Your task to perform on an android device: uninstall "TextNow: Call + Text Unlimited" Image 0: 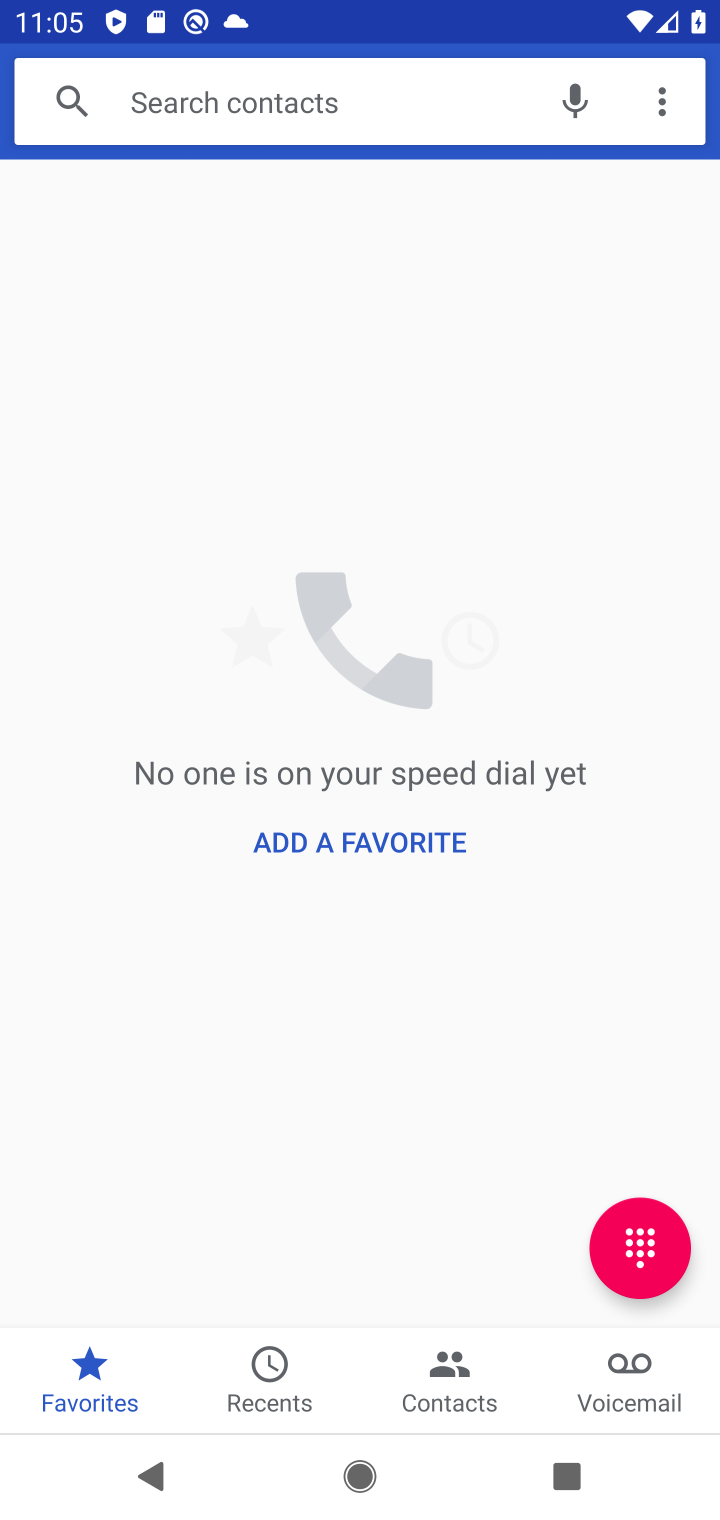
Step 0: press home button
Your task to perform on an android device: uninstall "TextNow: Call + Text Unlimited" Image 1: 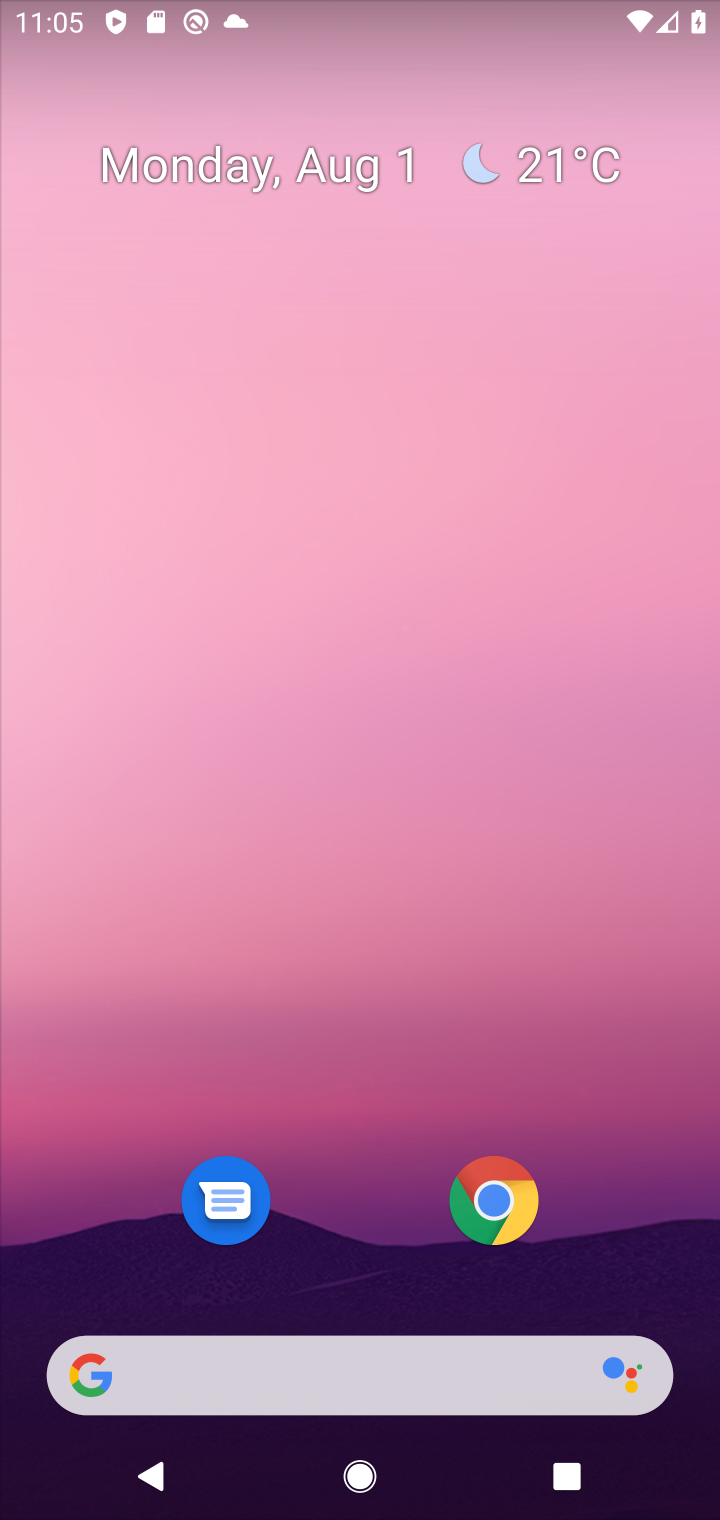
Step 1: drag from (372, 609) to (354, 87)
Your task to perform on an android device: uninstall "TextNow: Call + Text Unlimited" Image 2: 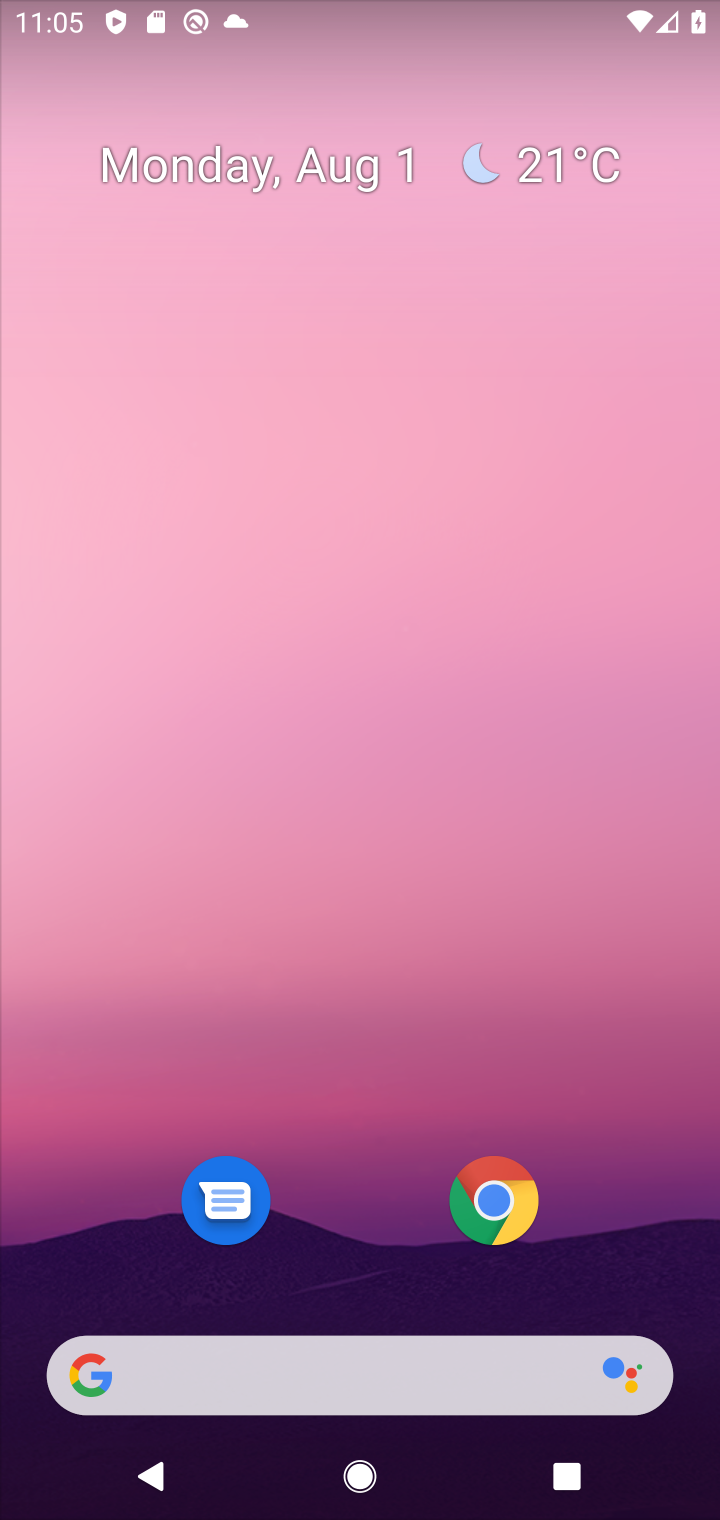
Step 2: drag from (334, 1082) to (311, 40)
Your task to perform on an android device: uninstall "TextNow: Call + Text Unlimited" Image 3: 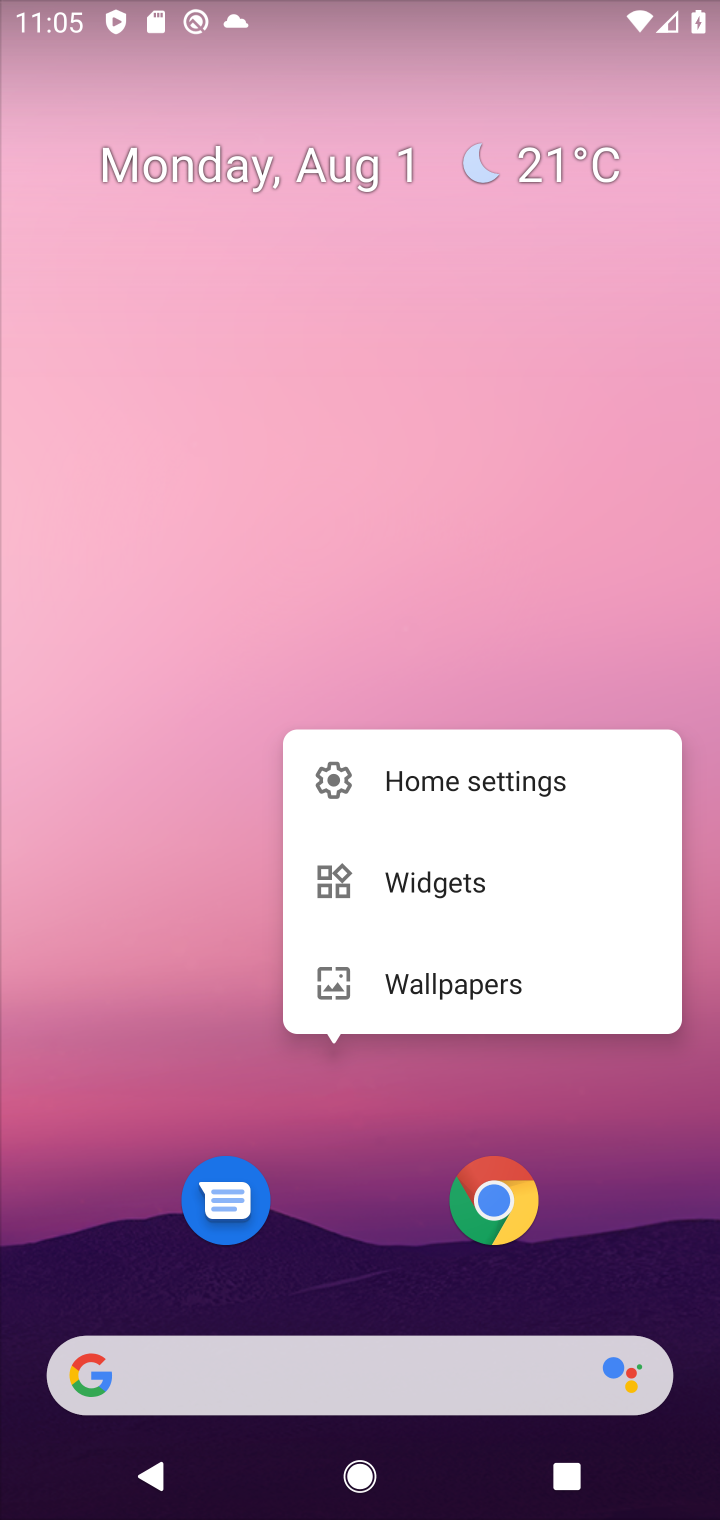
Step 3: drag from (208, 1079) to (192, 101)
Your task to perform on an android device: uninstall "TextNow: Call + Text Unlimited" Image 4: 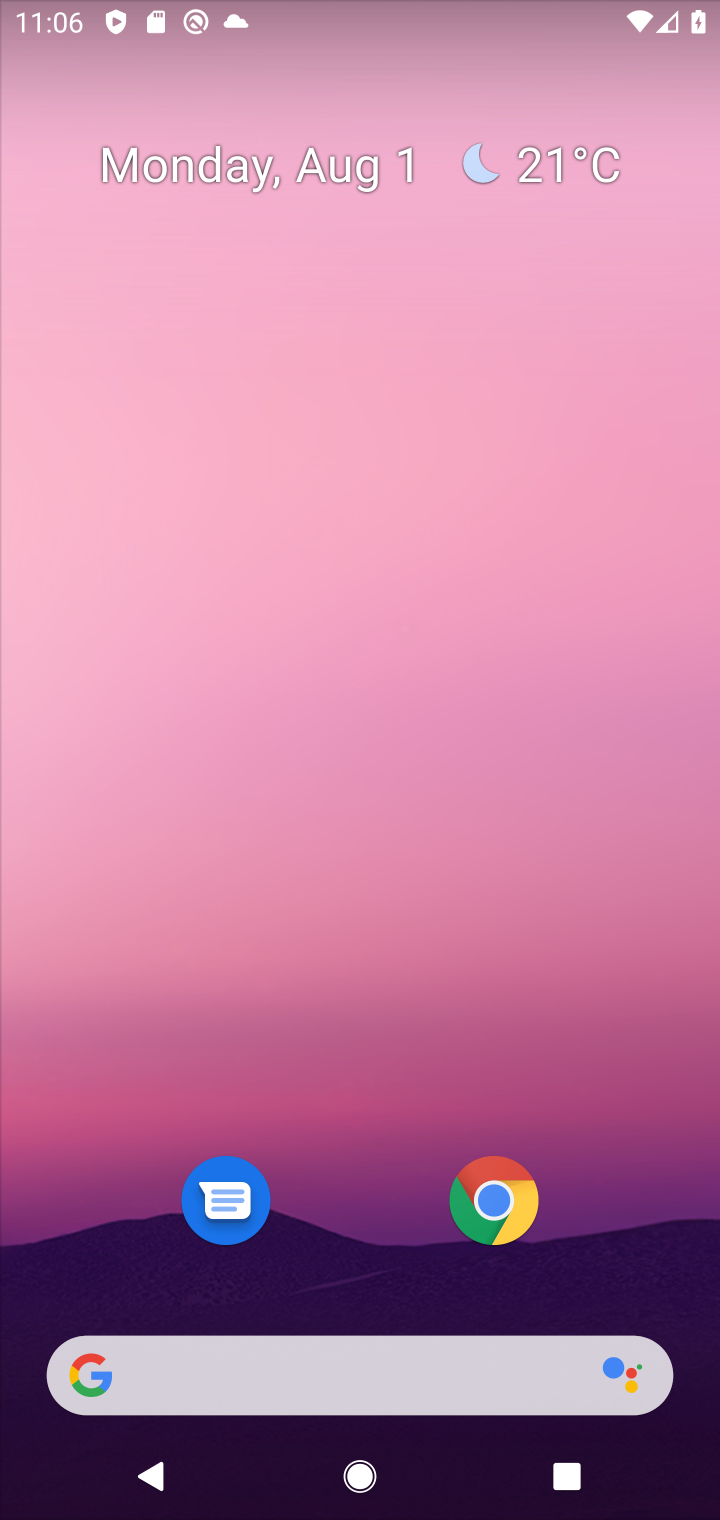
Step 4: drag from (338, 738) to (329, 109)
Your task to perform on an android device: uninstall "TextNow: Call + Text Unlimited" Image 5: 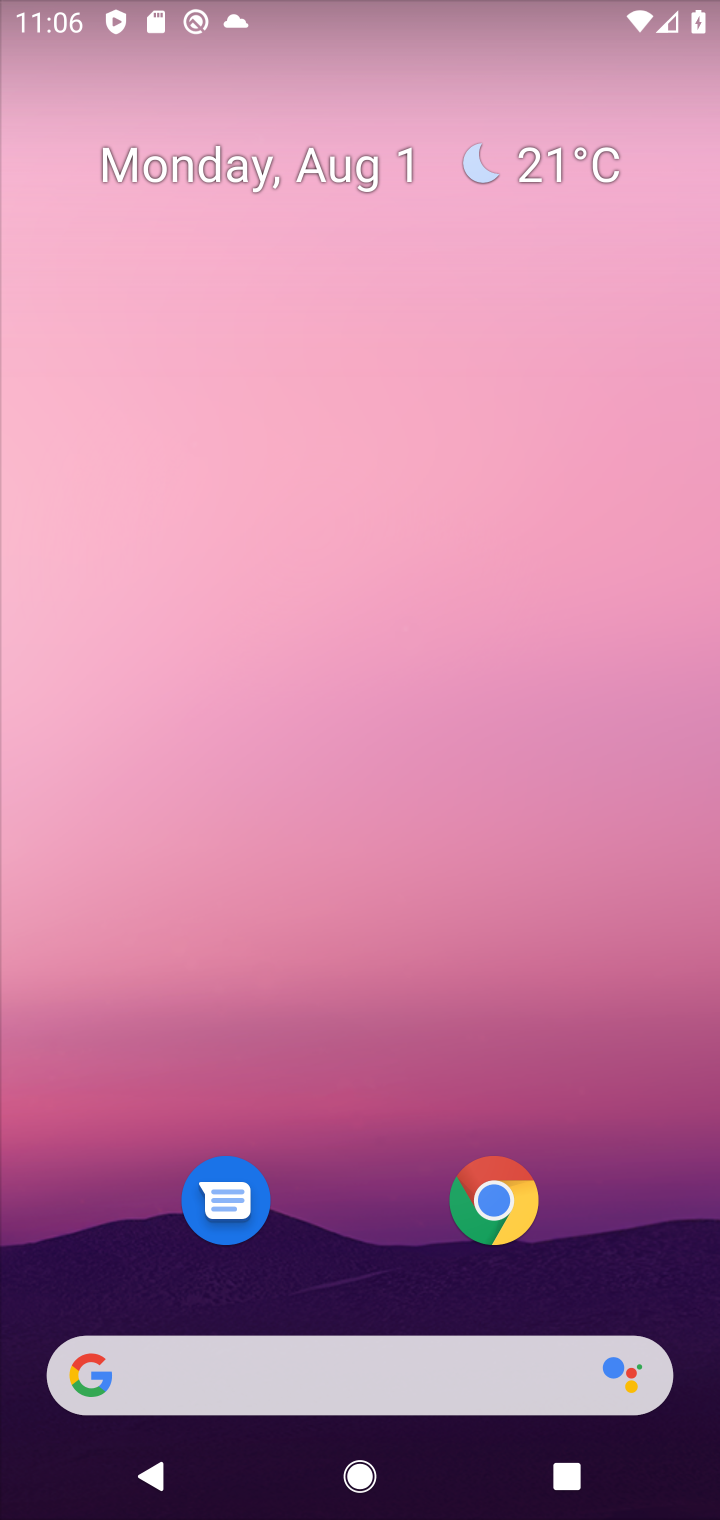
Step 5: drag from (389, 1238) to (391, 107)
Your task to perform on an android device: uninstall "TextNow: Call + Text Unlimited" Image 6: 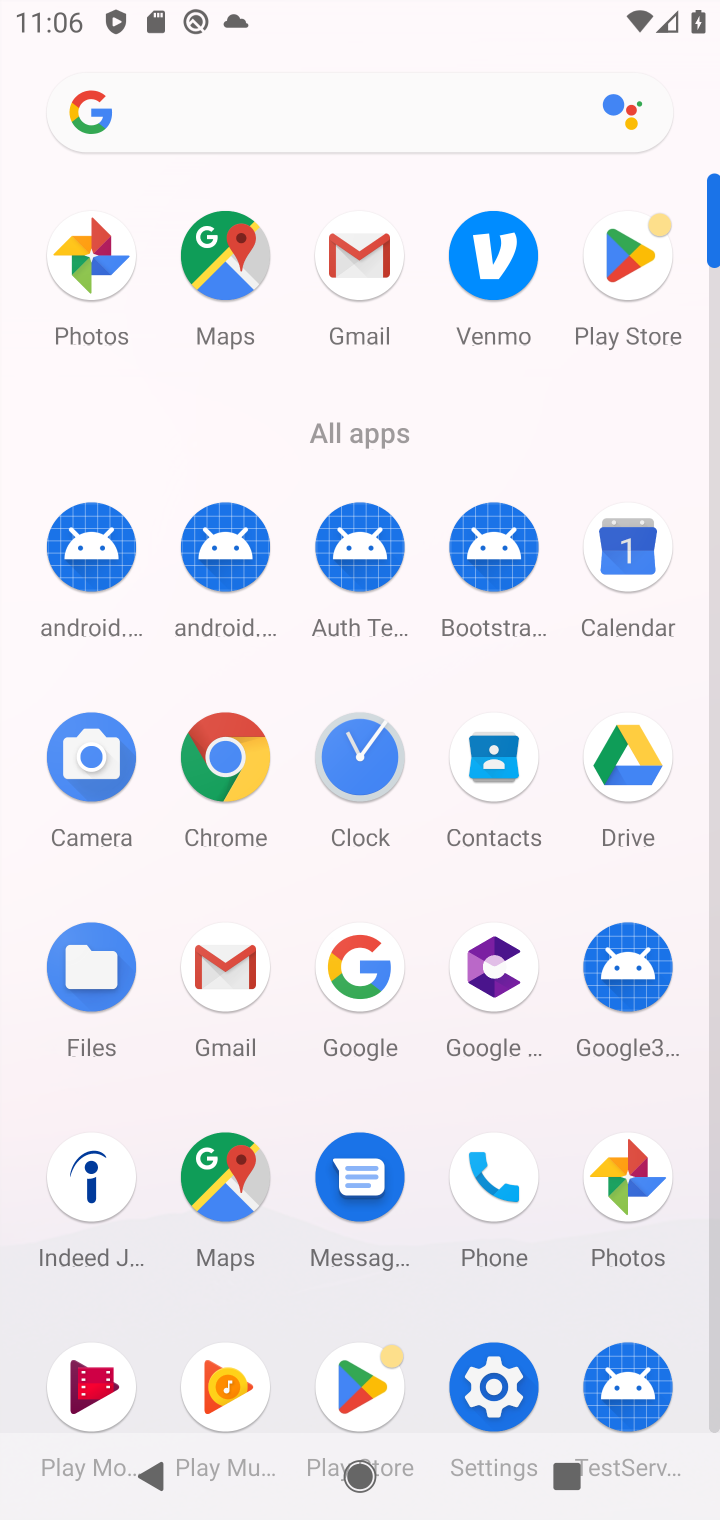
Step 6: click (634, 270)
Your task to perform on an android device: uninstall "TextNow: Call + Text Unlimited" Image 7: 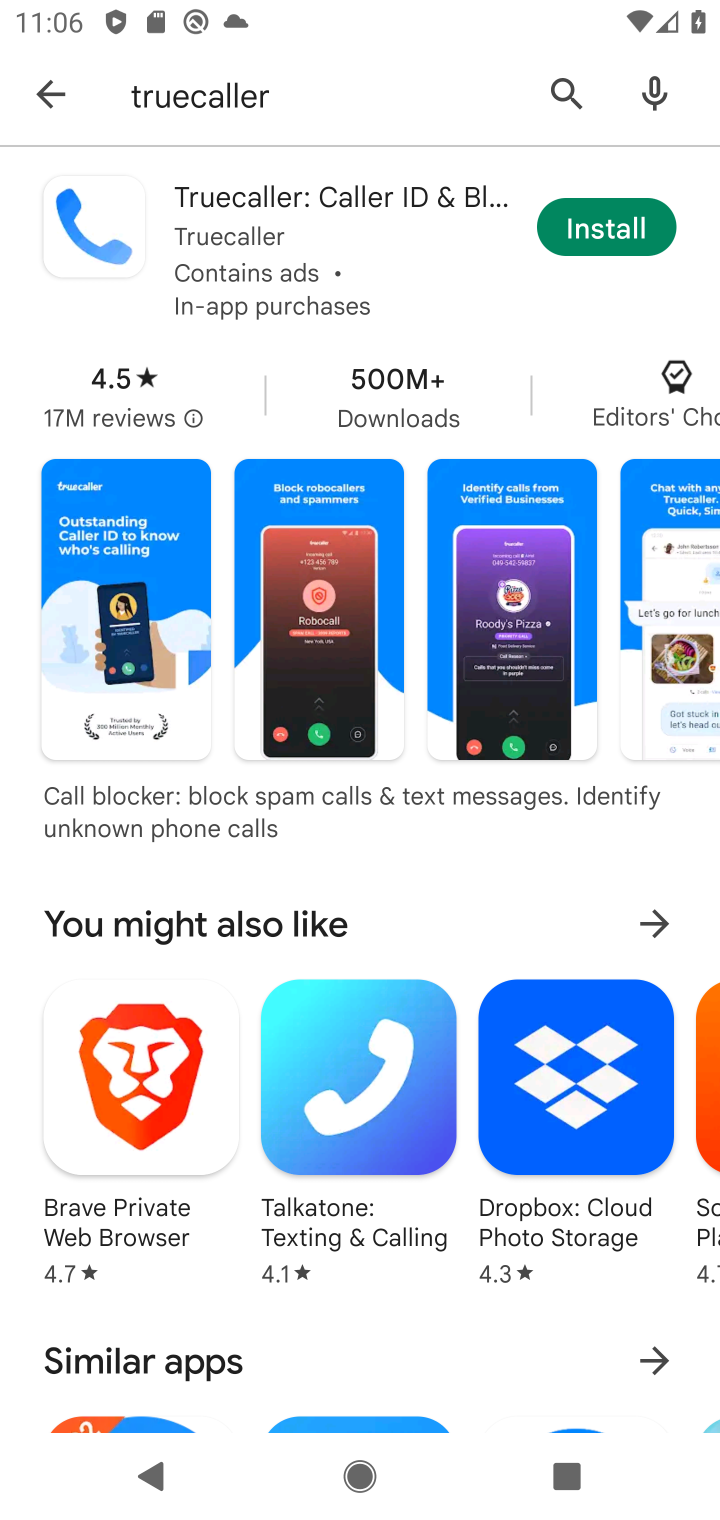
Step 7: click (559, 97)
Your task to perform on an android device: uninstall "TextNow: Call + Text Unlimited" Image 8: 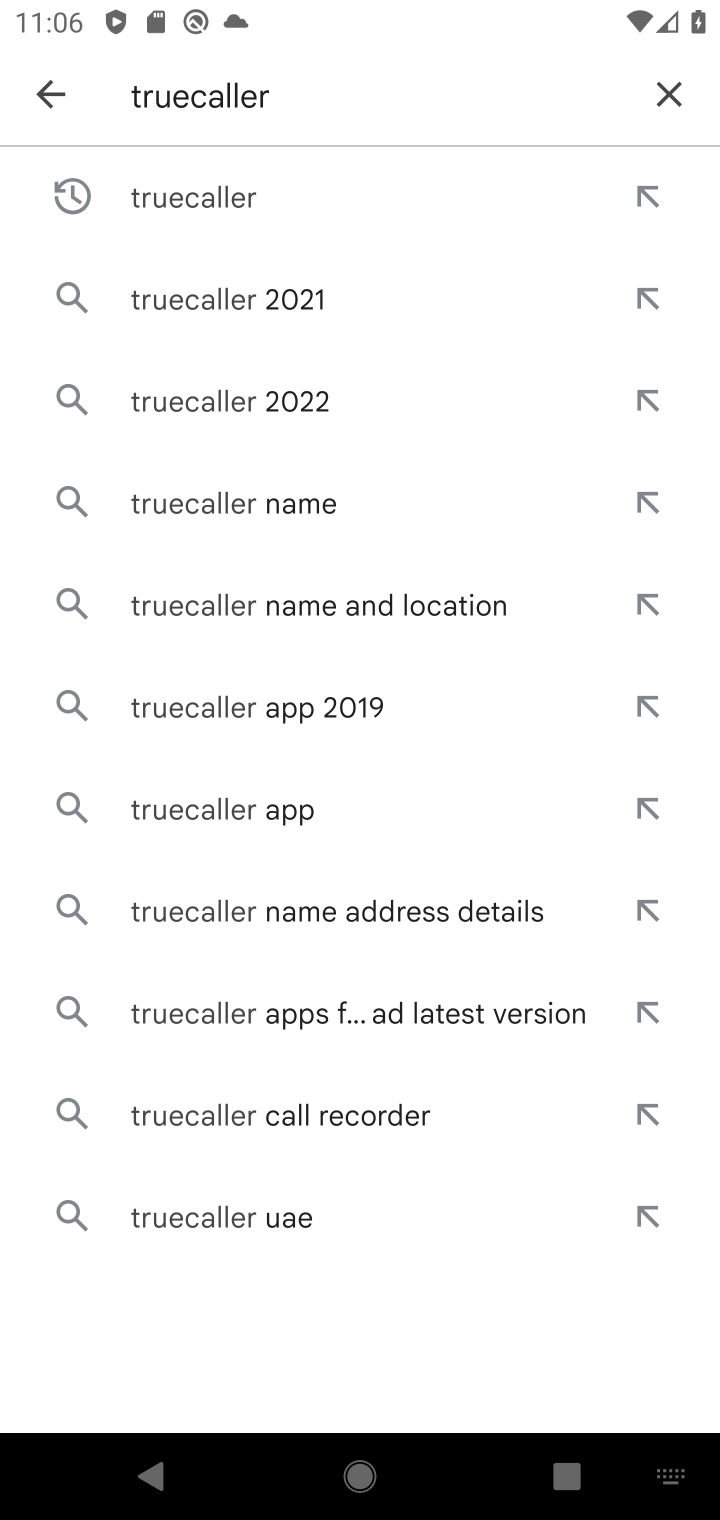
Step 8: click (656, 95)
Your task to perform on an android device: uninstall "TextNow: Call + Text Unlimited" Image 9: 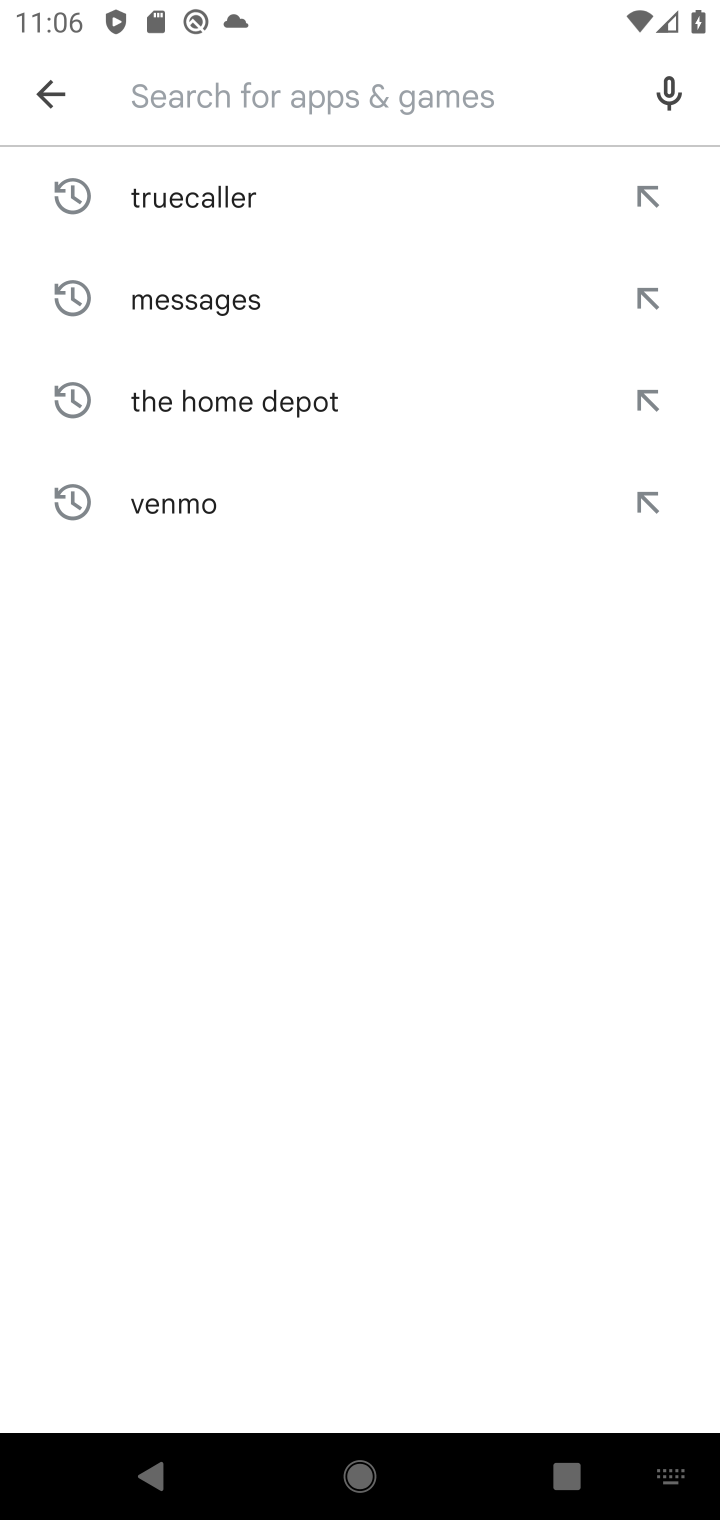
Step 9: type "TextNow: Call + Text Unlimited"
Your task to perform on an android device: uninstall "TextNow: Call + Text Unlimited" Image 10: 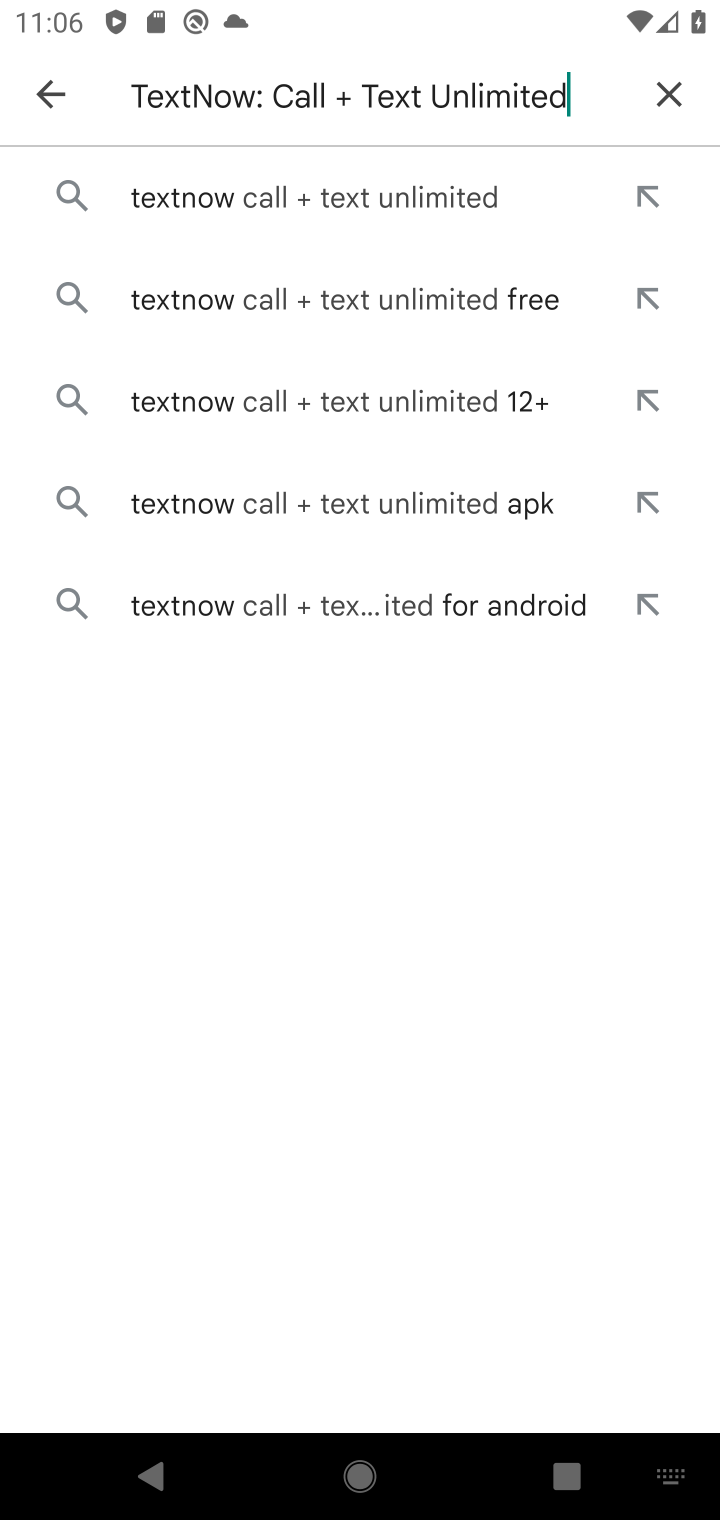
Step 10: click (244, 198)
Your task to perform on an android device: uninstall "TextNow: Call + Text Unlimited" Image 11: 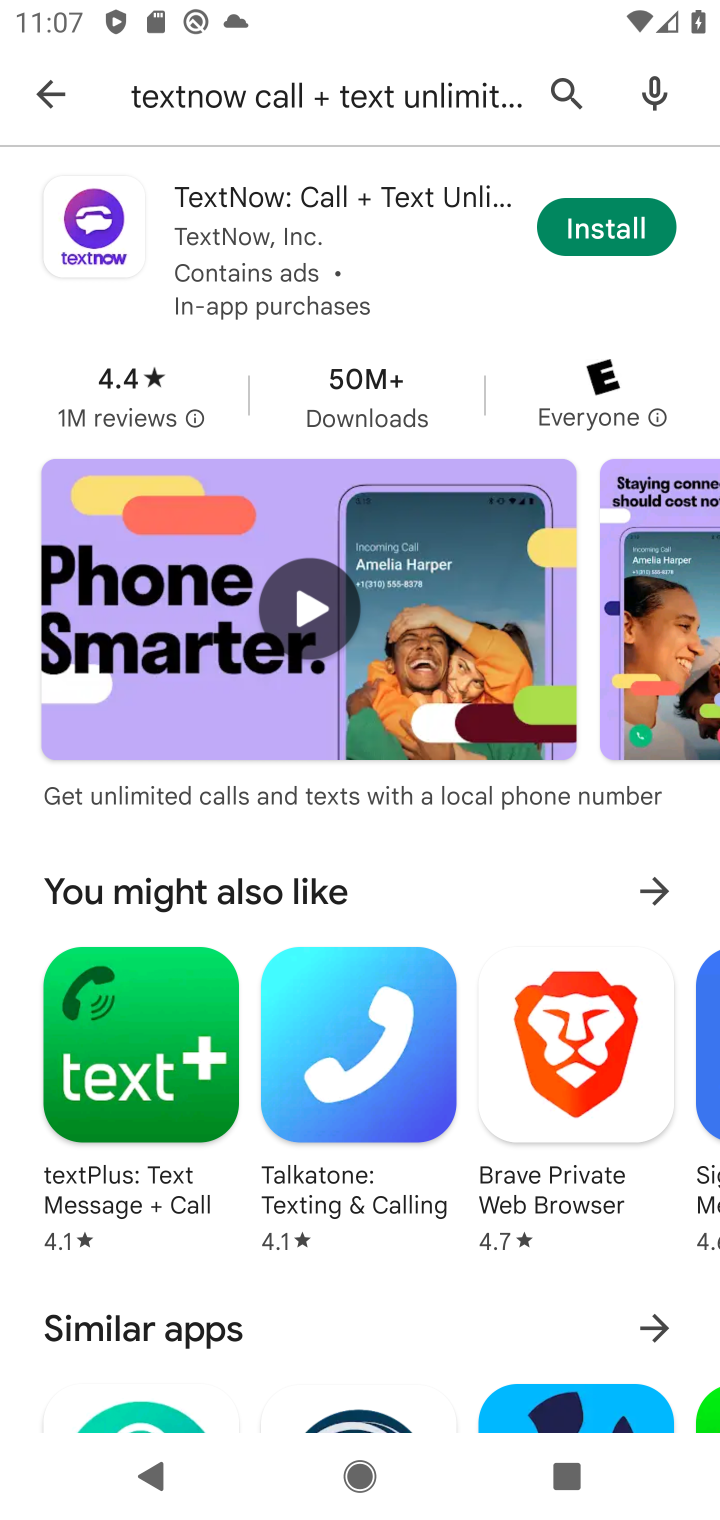
Step 11: task complete